Your task to perform on an android device: turn smart compose on in the gmail app Image 0: 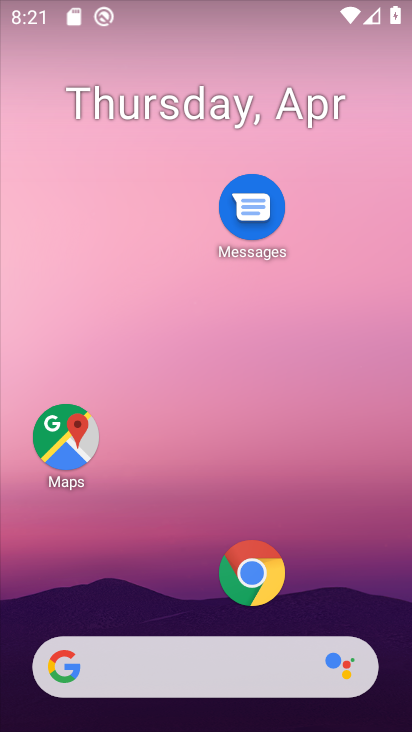
Step 0: drag from (197, 614) to (183, 86)
Your task to perform on an android device: turn smart compose on in the gmail app Image 1: 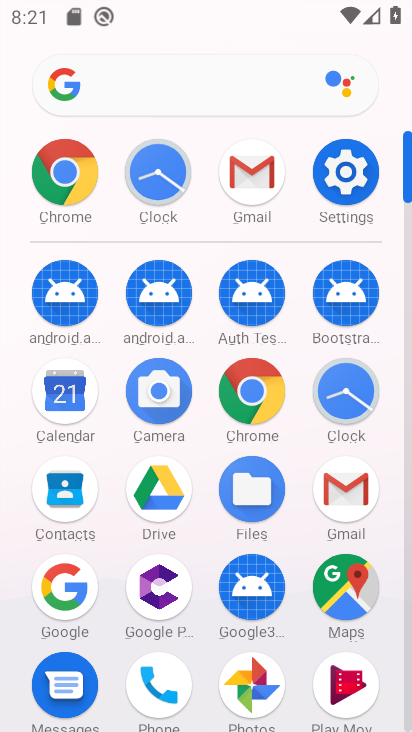
Step 1: click (347, 481)
Your task to perform on an android device: turn smart compose on in the gmail app Image 2: 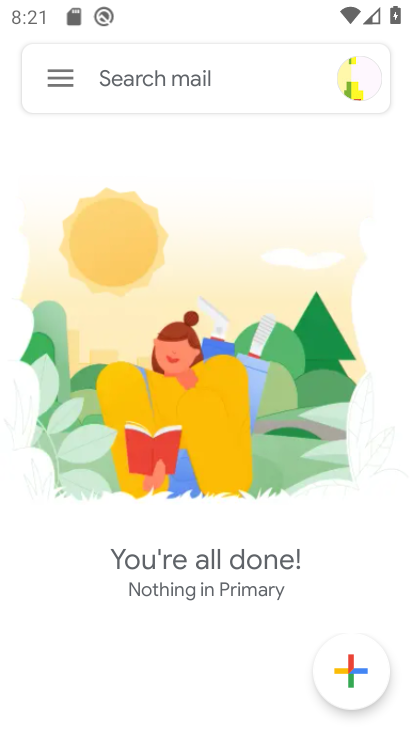
Step 2: click (51, 71)
Your task to perform on an android device: turn smart compose on in the gmail app Image 3: 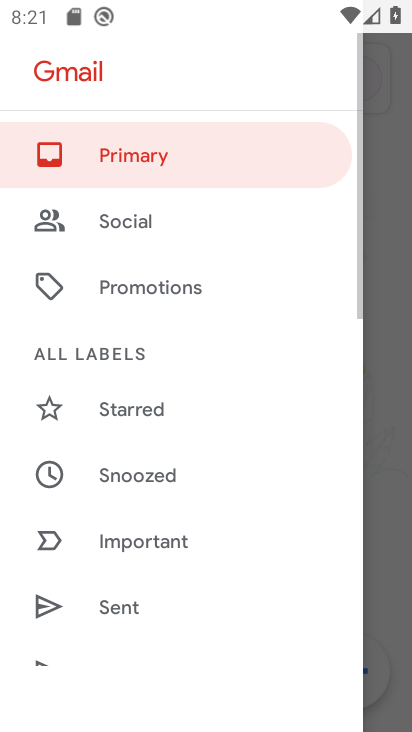
Step 3: drag from (144, 627) to (192, 90)
Your task to perform on an android device: turn smart compose on in the gmail app Image 4: 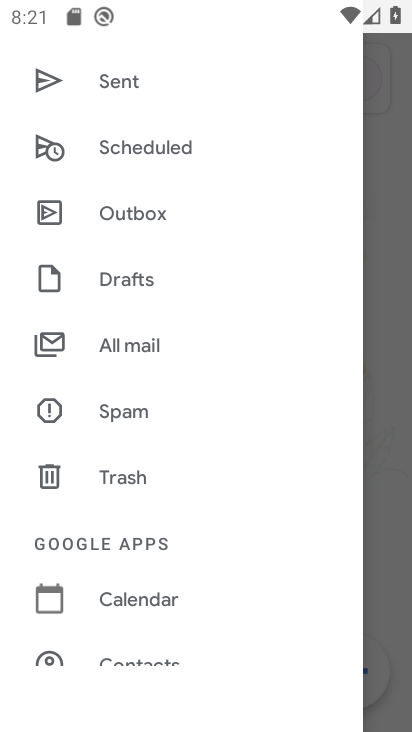
Step 4: drag from (173, 628) to (167, 115)
Your task to perform on an android device: turn smart compose on in the gmail app Image 5: 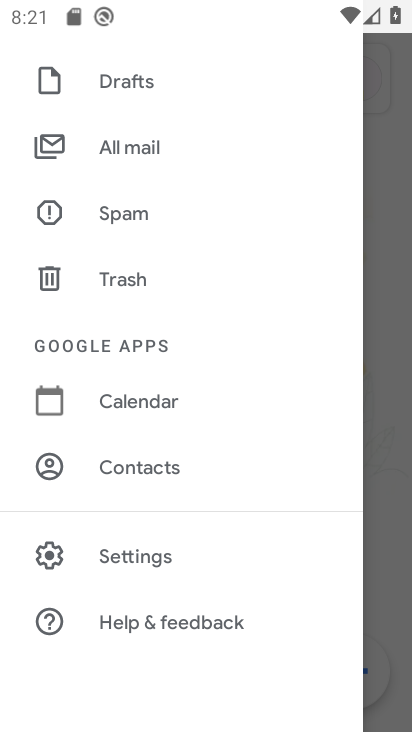
Step 5: click (186, 556)
Your task to perform on an android device: turn smart compose on in the gmail app Image 6: 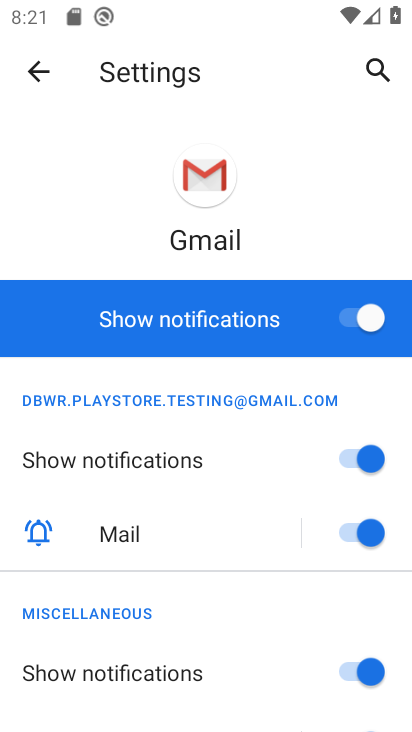
Step 6: click (39, 64)
Your task to perform on an android device: turn smart compose on in the gmail app Image 7: 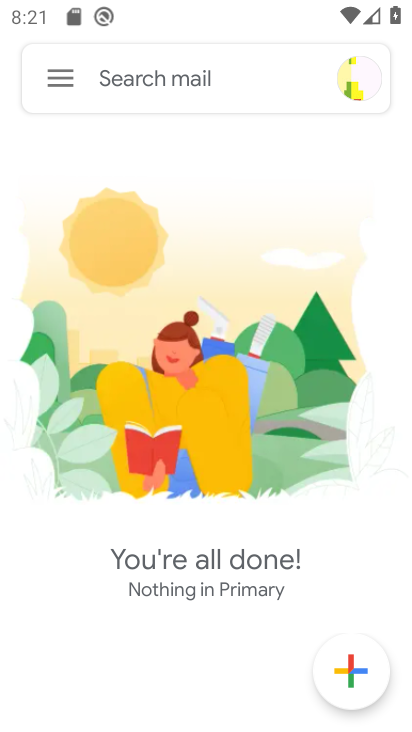
Step 7: click (54, 73)
Your task to perform on an android device: turn smart compose on in the gmail app Image 8: 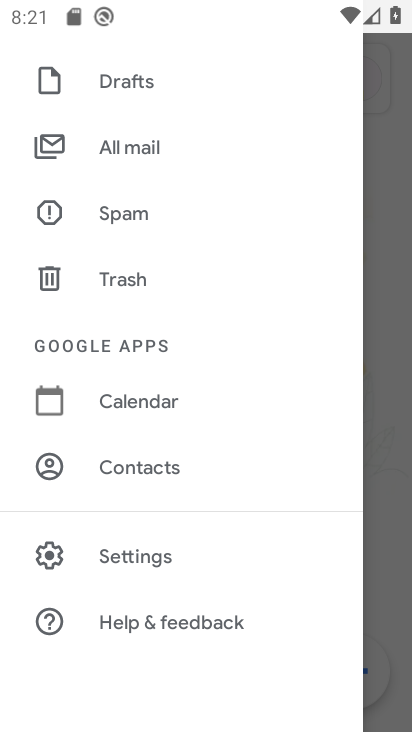
Step 8: click (174, 556)
Your task to perform on an android device: turn smart compose on in the gmail app Image 9: 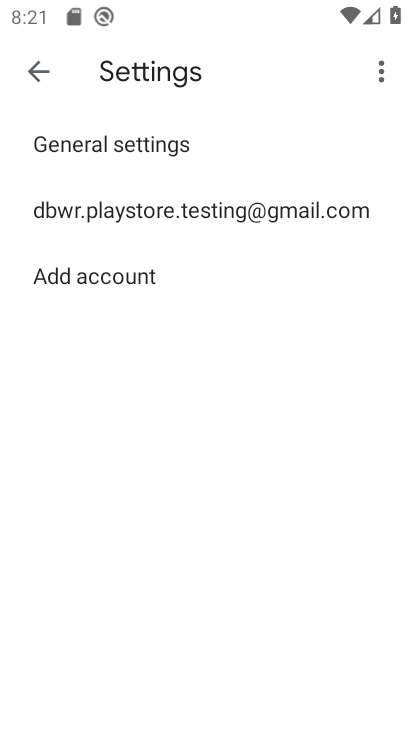
Step 9: click (208, 205)
Your task to perform on an android device: turn smart compose on in the gmail app Image 10: 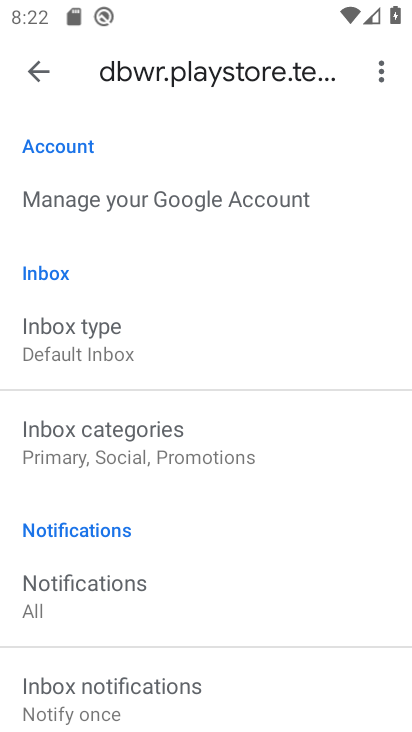
Step 10: task complete